Your task to perform on an android device: Add "bose quietcomfort 35" to the cart on ebay.com, then select checkout. Image 0: 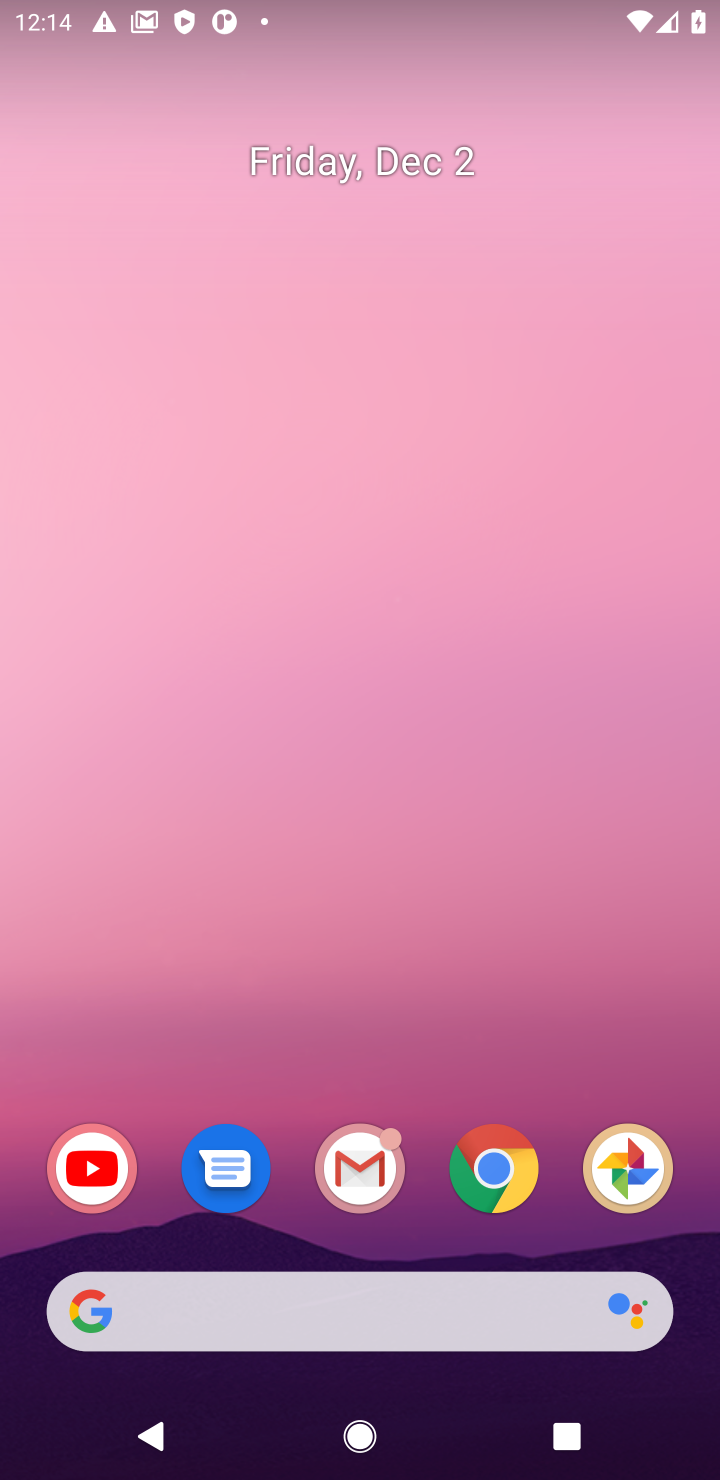
Step 0: click (505, 1177)
Your task to perform on an android device: Add "bose quietcomfort 35" to the cart on ebay.com, then select checkout. Image 1: 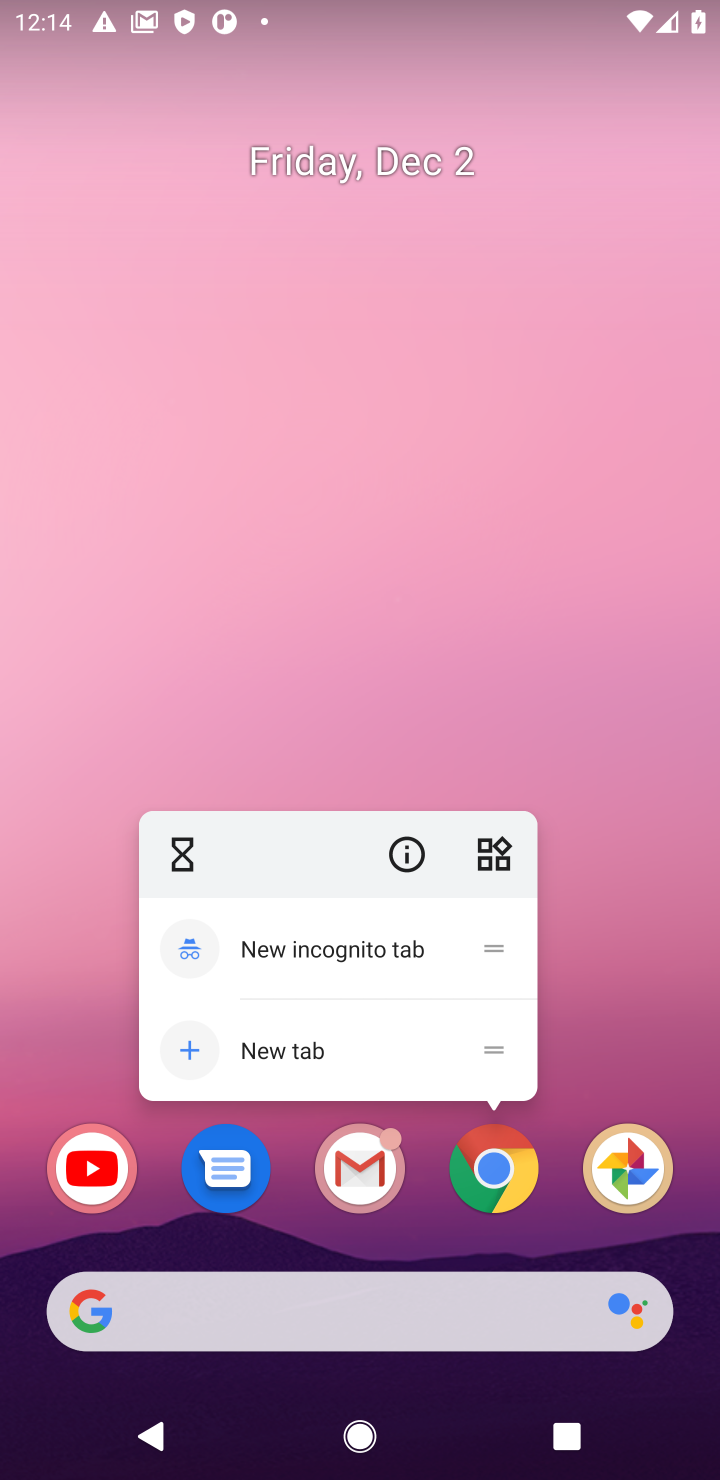
Step 1: click (505, 1177)
Your task to perform on an android device: Add "bose quietcomfort 35" to the cart on ebay.com, then select checkout. Image 2: 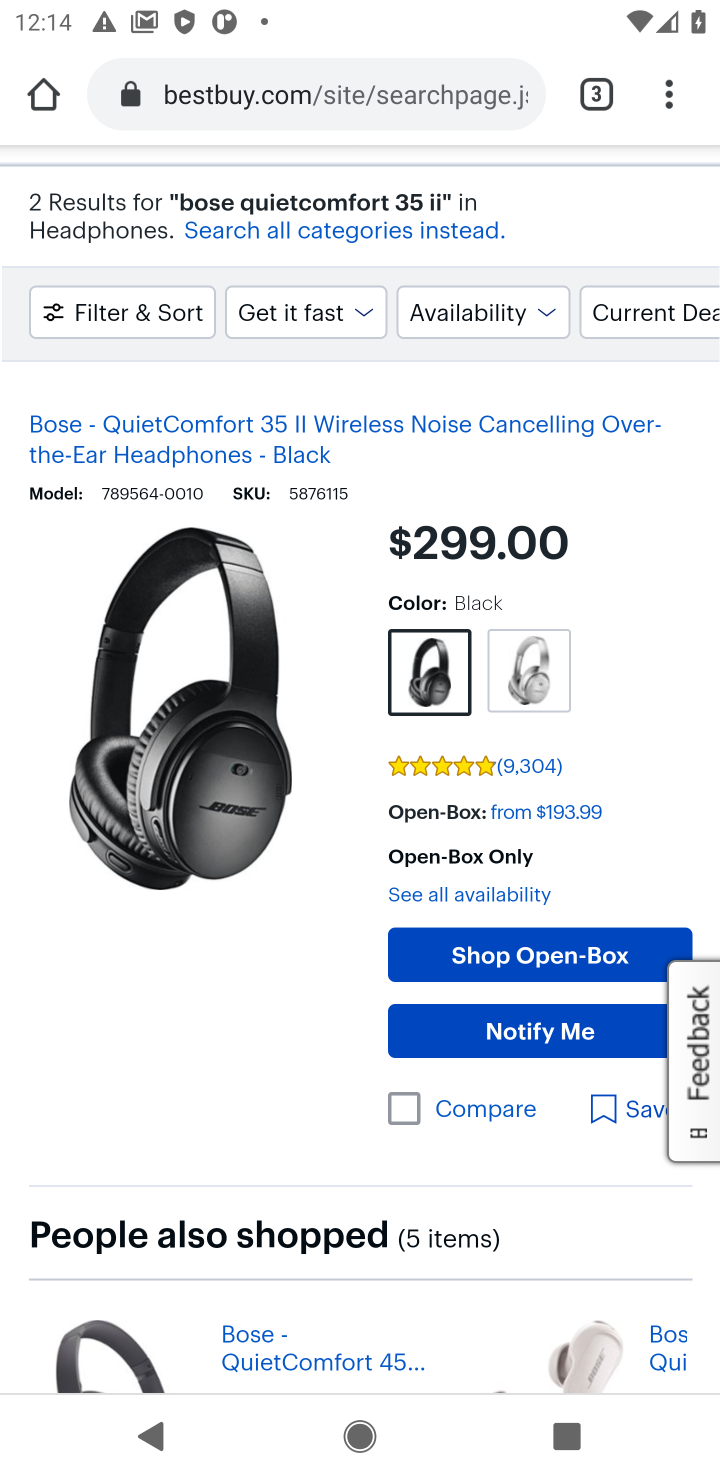
Step 2: click (258, 106)
Your task to perform on an android device: Add "bose quietcomfort 35" to the cart on ebay.com, then select checkout. Image 3: 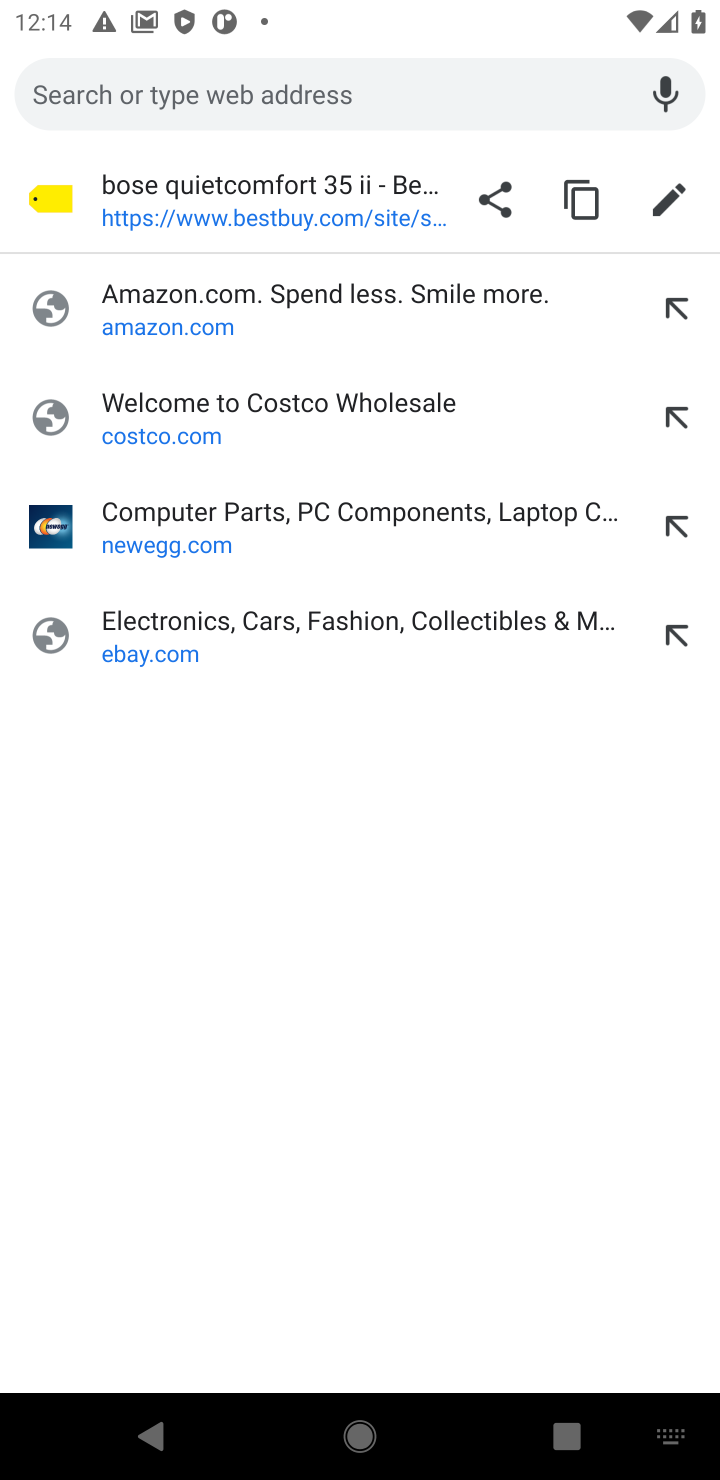
Step 3: click (147, 628)
Your task to perform on an android device: Add "bose quietcomfort 35" to the cart on ebay.com, then select checkout. Image 4: 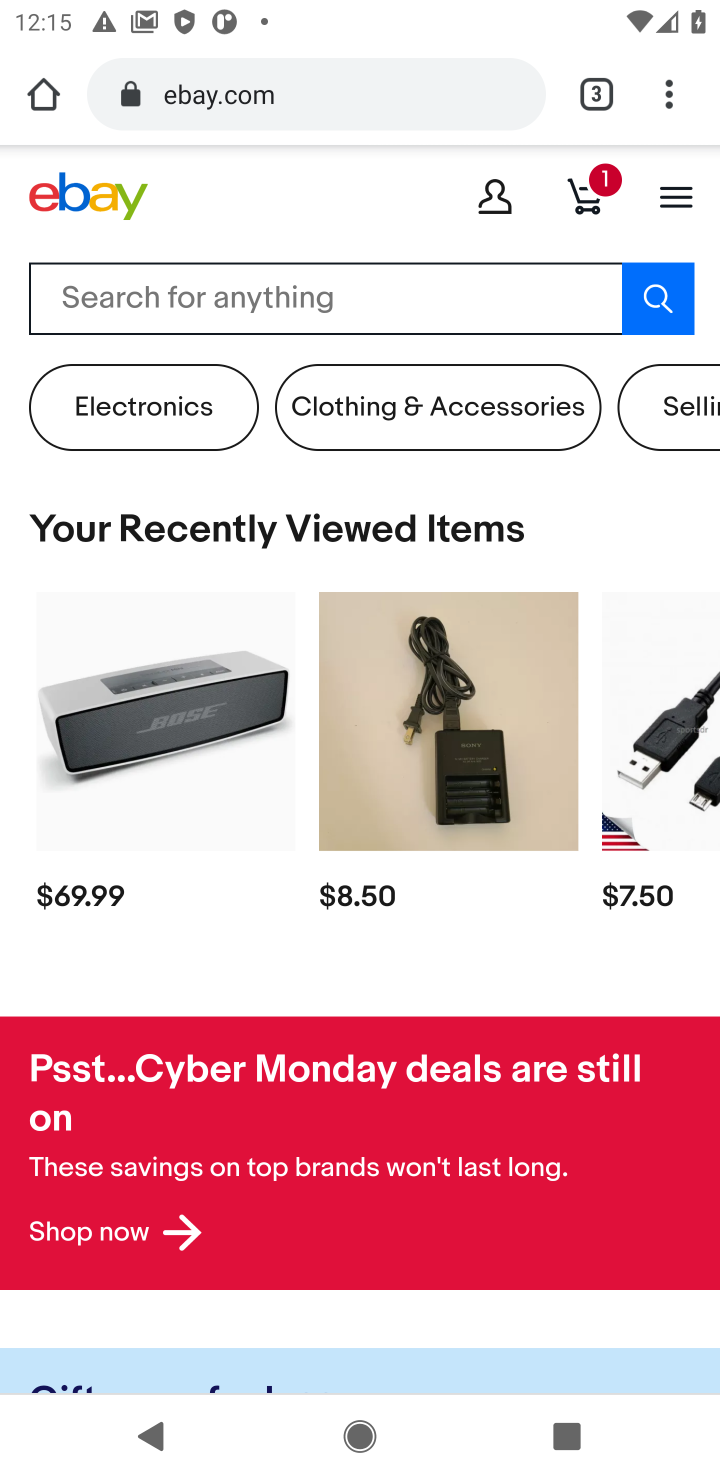
Step 4: click (84, 285)
Your task to perform on an android device: Add "bose quietcomfort 35" to the cart on ebay.com, then select checkout. Image 5: 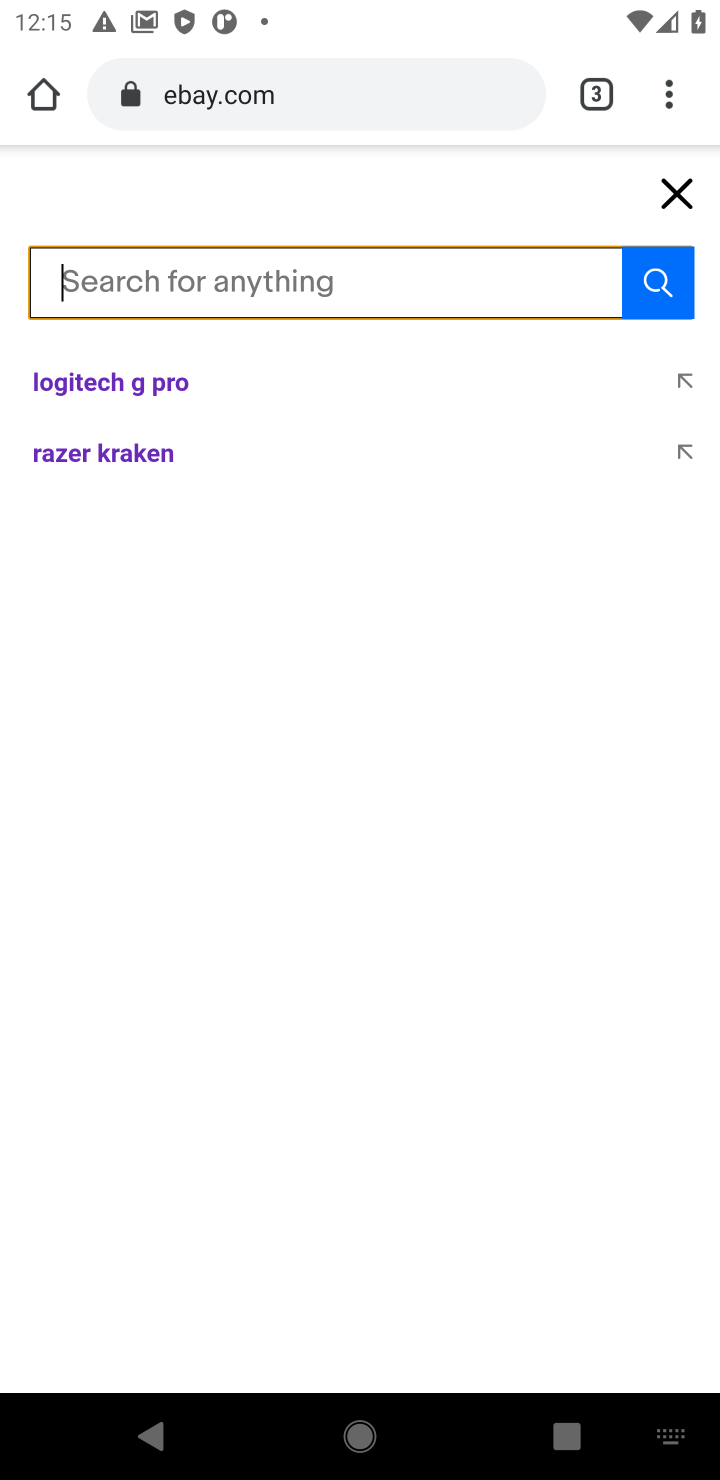
Step 5: type "bose quietcomfort 35"
Your task to perform on an android device: Add "bose quietcomfort 35" to the cart on ebay.com, then select checkout. Image 6: 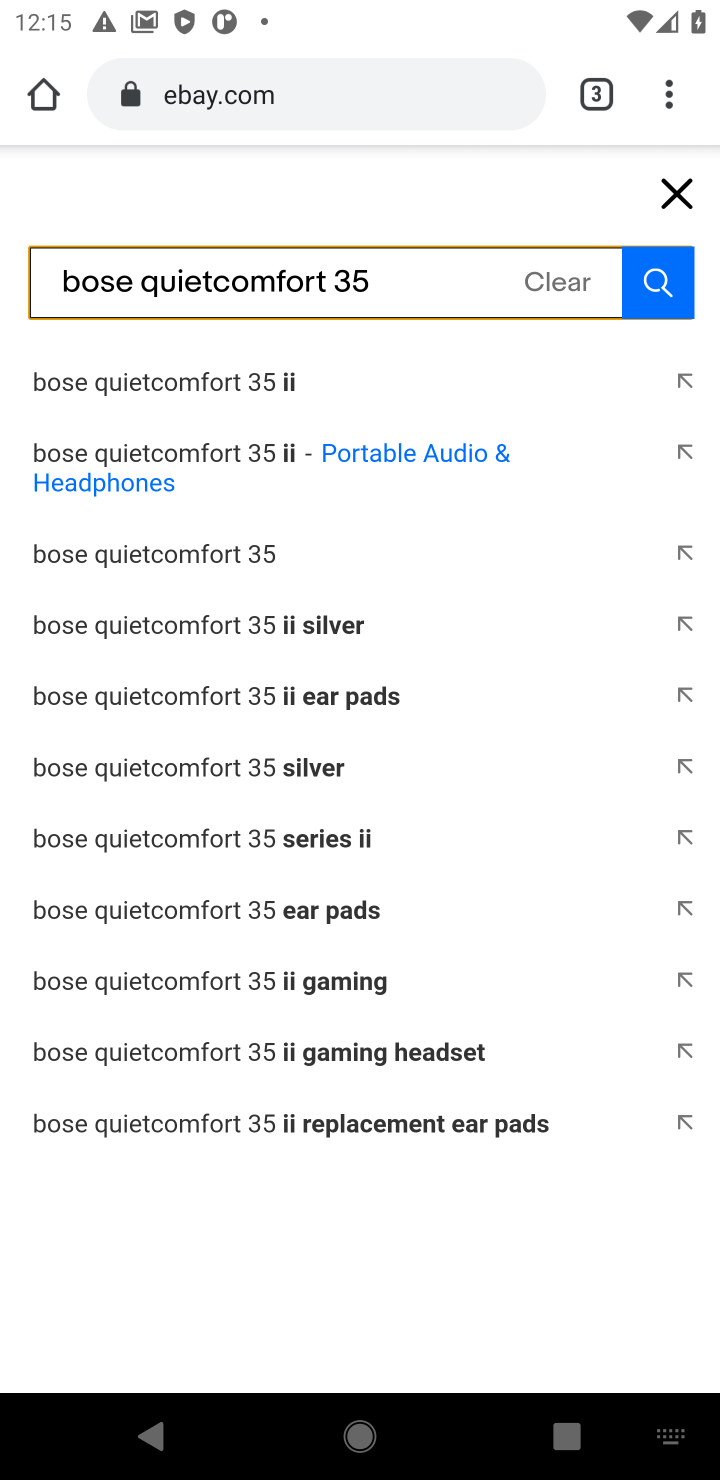
Step 6: click (661, 282)
Your task to perform on an android device: Add "bose quietcomfort 35" to the cart on ebay.com, then select checkout. Image 7: 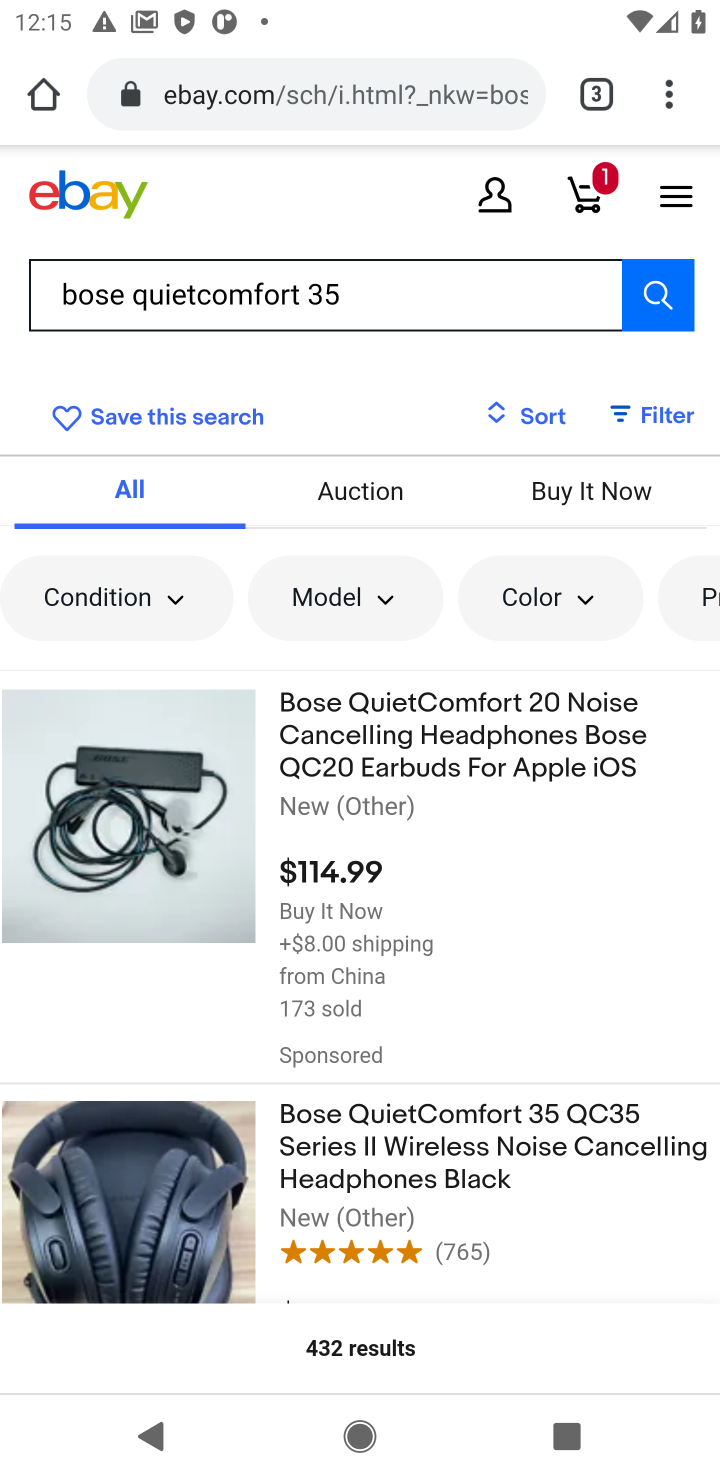
Step 7: drag from (285, 991) to (310, 703)
Your task to perform on an android device: Add "bose quietcomfort 35" to the cart on ebay.com, then select checkout. Image 8: 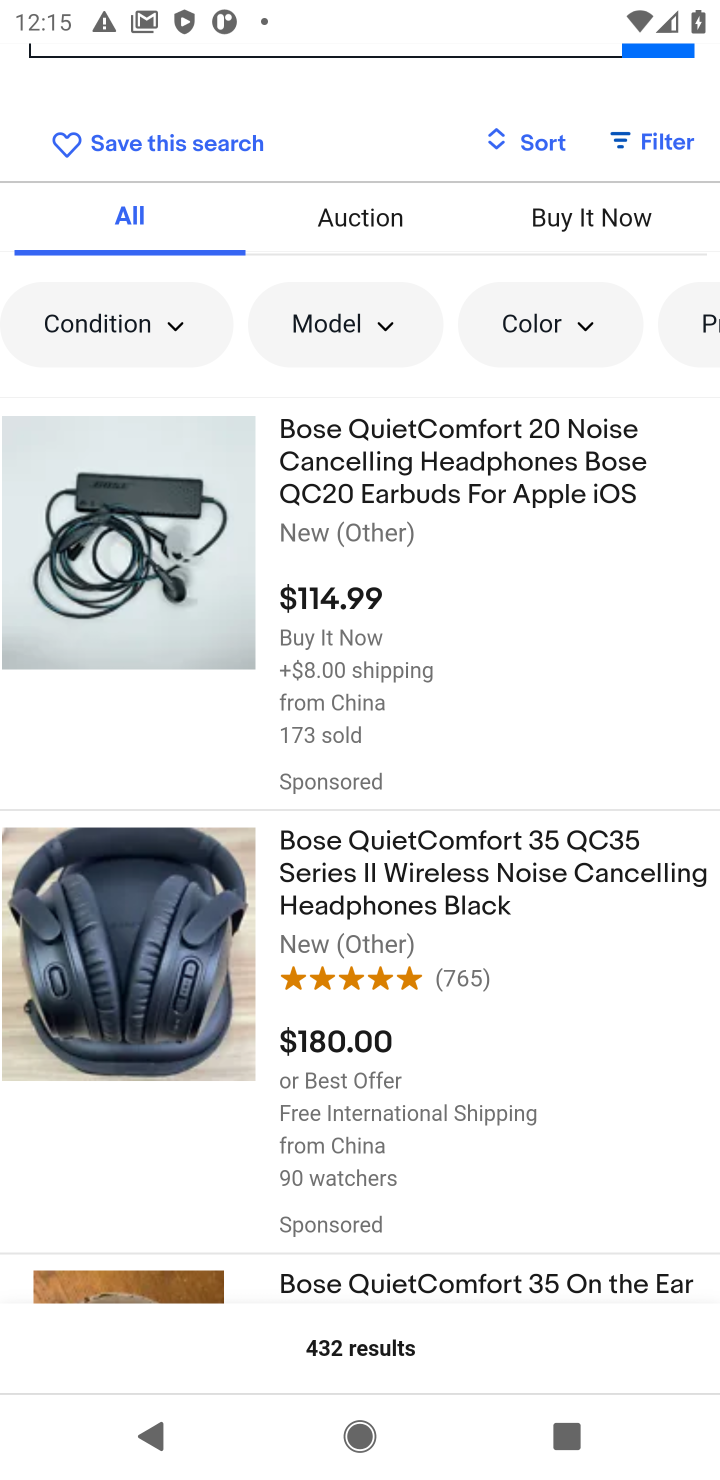
Step 8: click (332, 869)
Your task to perform on an android device: Add "bose quietcomfort 35" to the cart on ebay.com, then select checkout. Image 9: 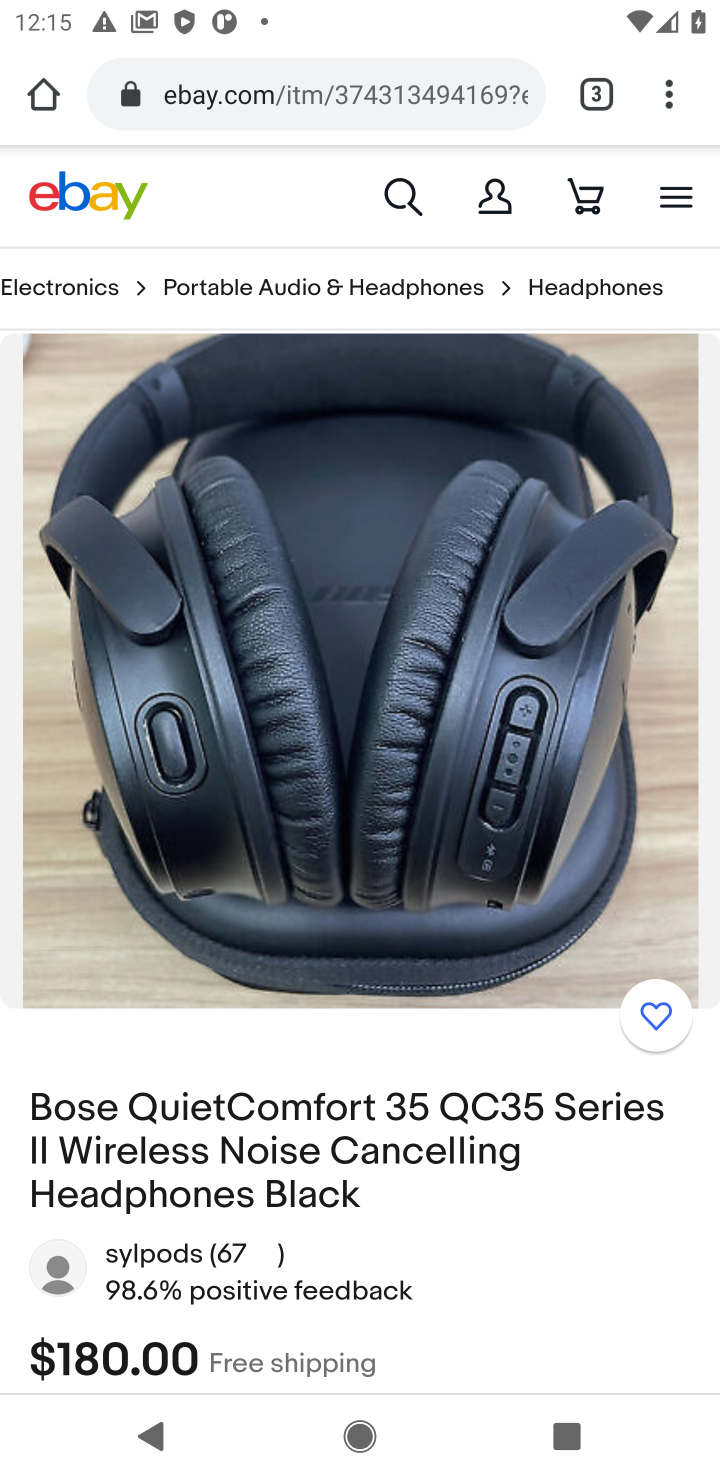
Step 9: drag from (351, 956) to (366, 601)
Your task to perform on an android device: Add "bose quietcomfort 35" to the cart on ebay.com, then select checkout. Image 10: 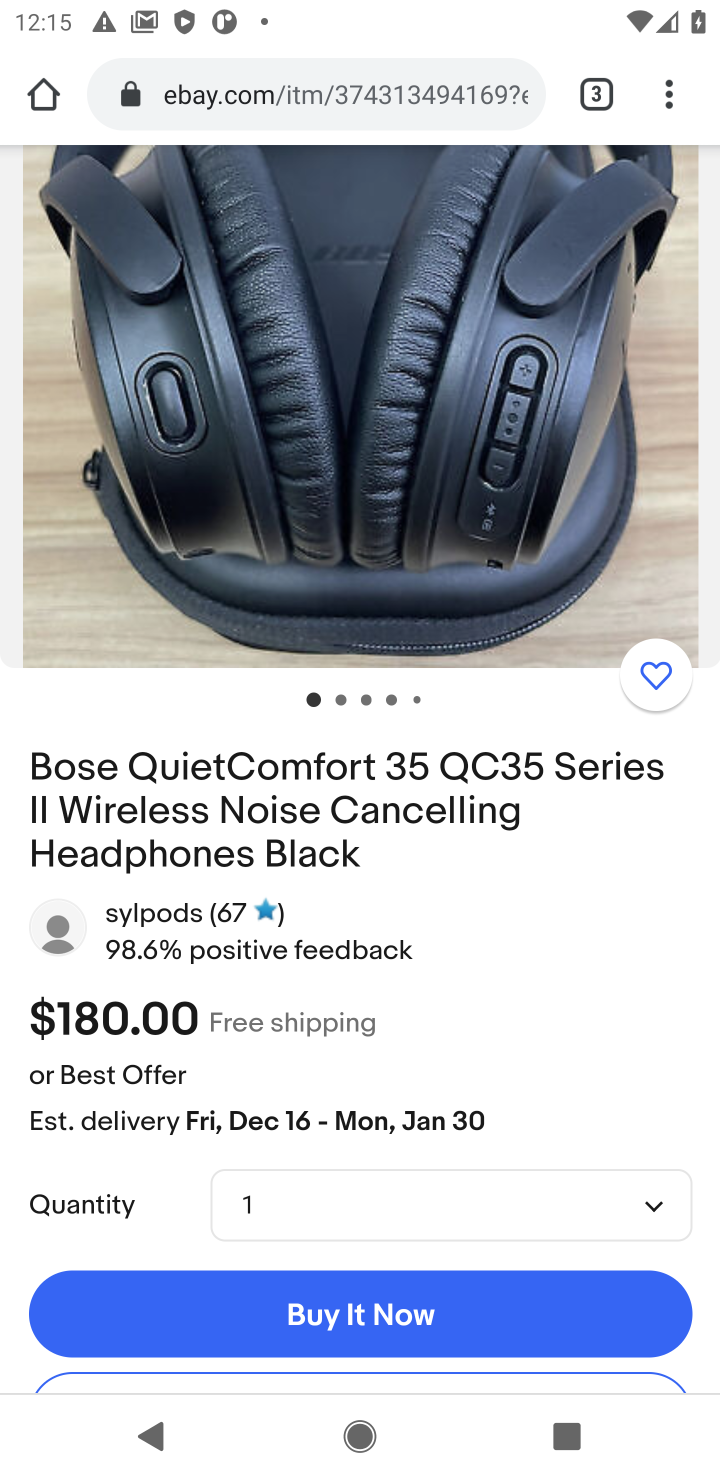
Step 10: drag from (340, 1148) to (307, 568)
Your task to perform on an android device: Add "bose quietcomfort 35" to the cart on ebay.com, then select checkout. Image 11: 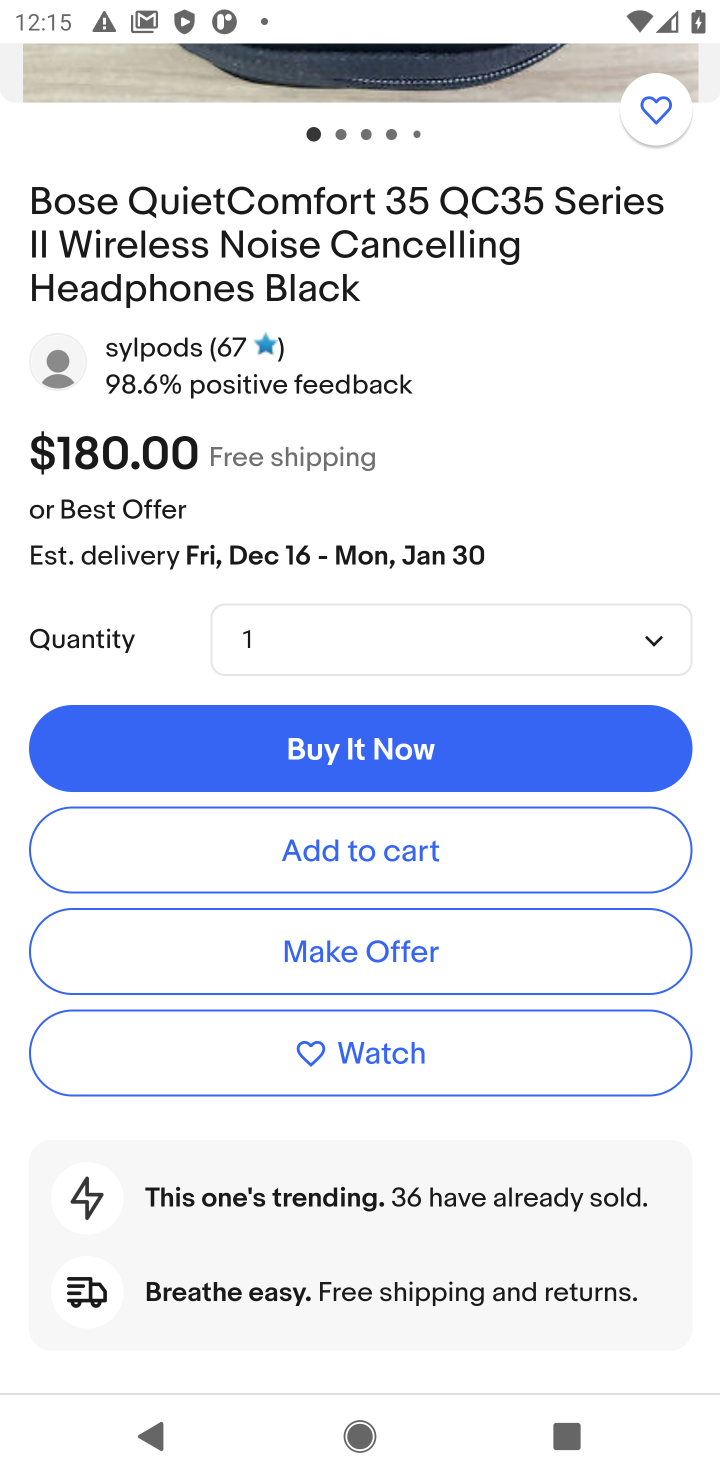
Step 11: click (335, 856)
Your task to perform on an android device: Add "bose quietcomfort 35" to the cart on ebay.com, then select checkout. Image 12: 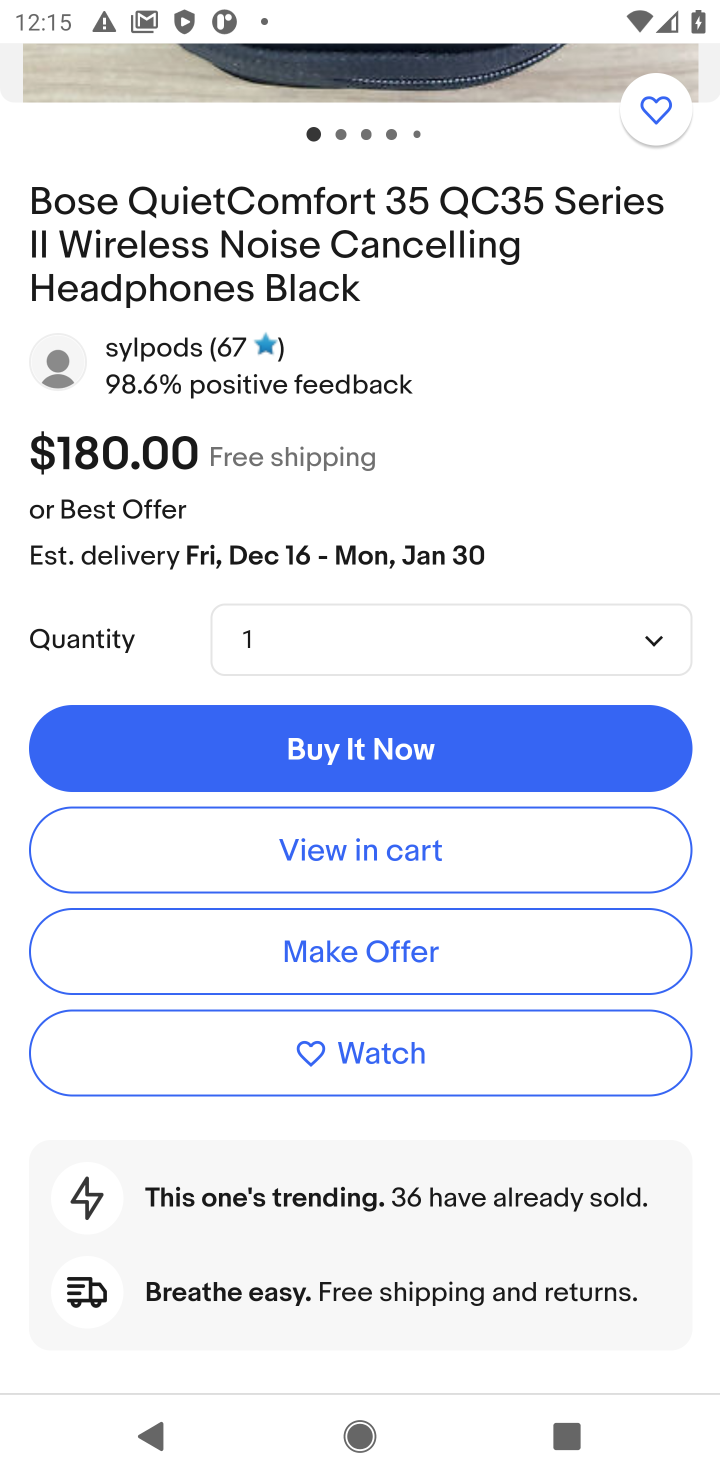
Step 12: click (335, 856)
Your task to perform on an android device: Add "bose quietcomfort 35" to the cart on ebay.com, then select checkout. Image 13: 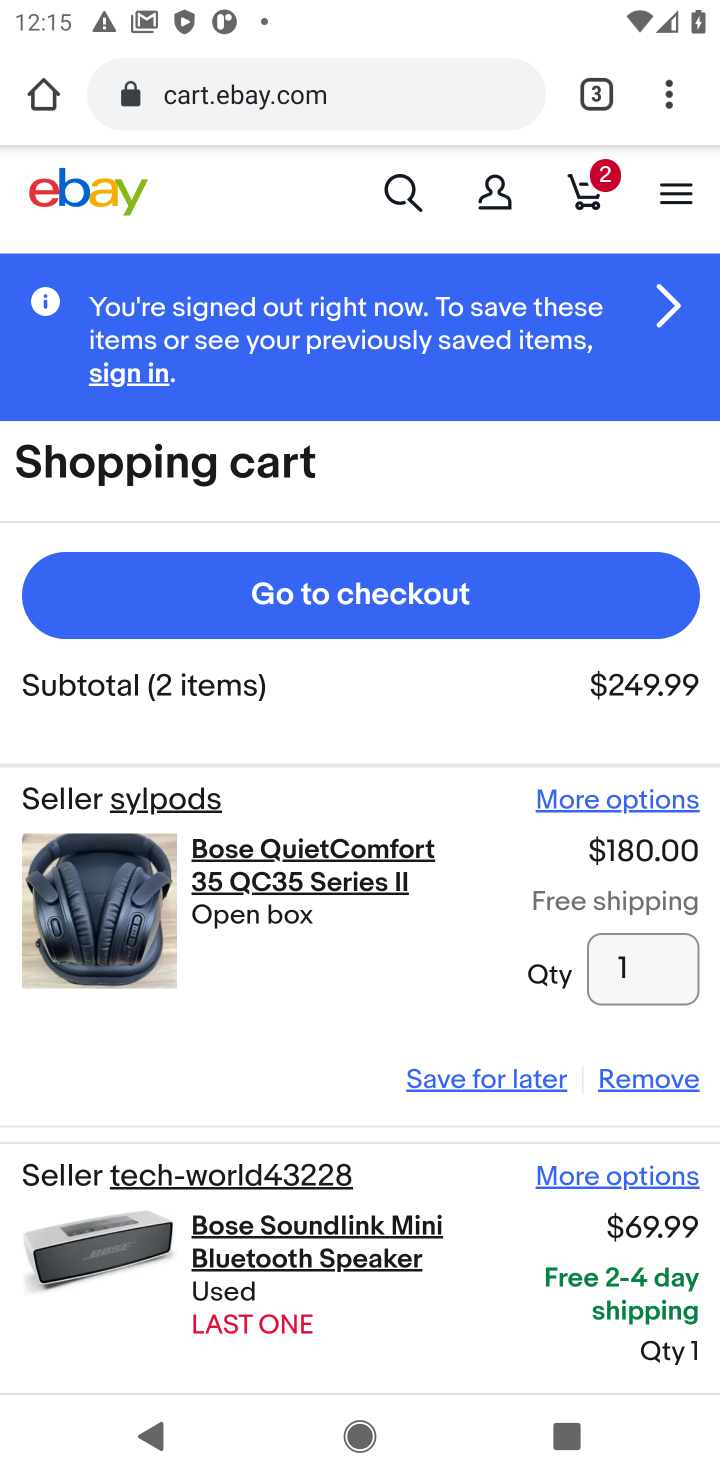
Step 13: click (370, 606)
Your task to perform on an android device: Add "bose quietcomfort 35" to the cart on ebay.com, then select checkout. Image 14: 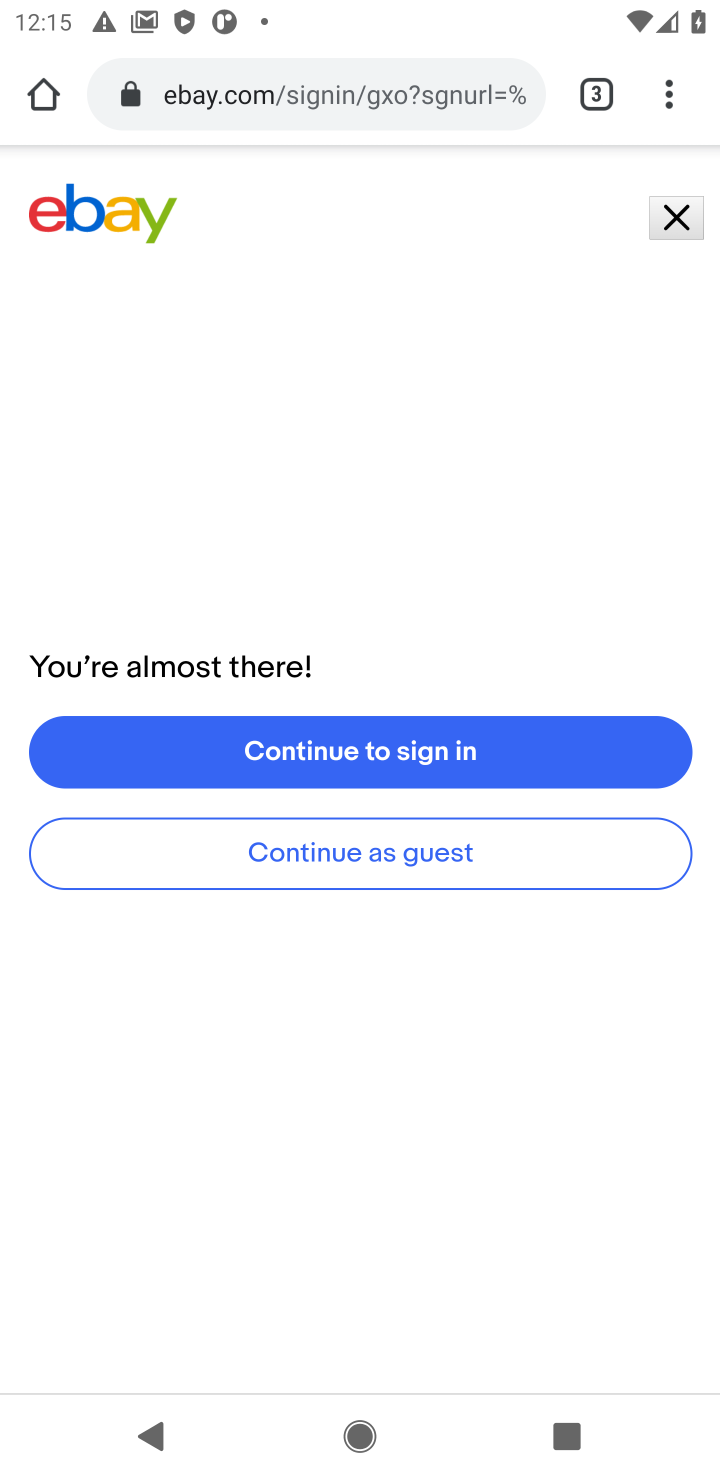
Step 14: task complete